Your task to perform on an android device: Search for Mexican restaurants on Maps Image 0: 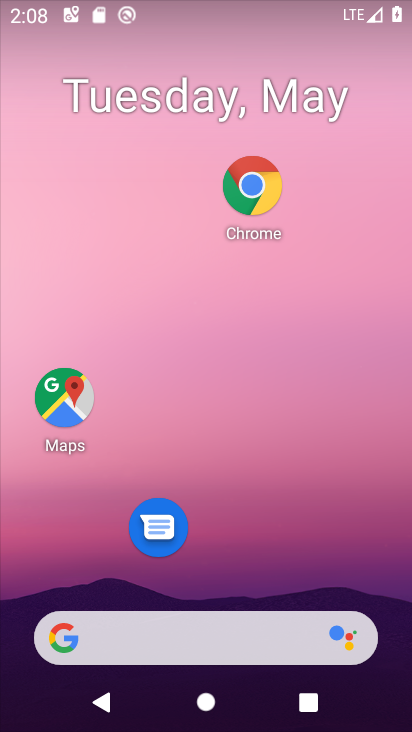
Step 0: click (48, 395)
Your task to perform on an android device: Search for Mexican restaurants on Maps Image 1: 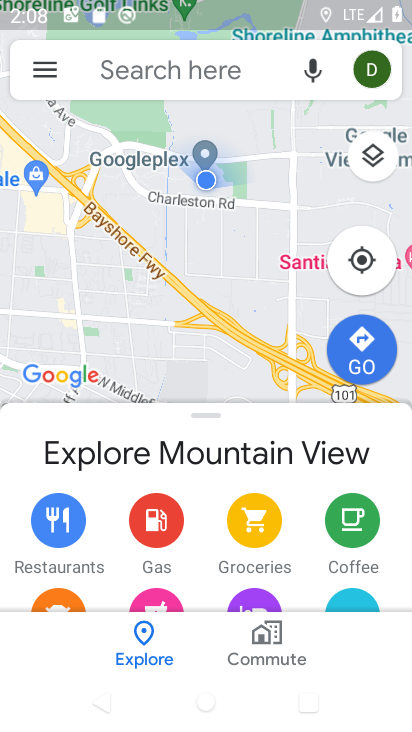
Step 1: click (125, 62)
Your task to perform on an android device: Search for Mexican restaurants on Maps Image 2: 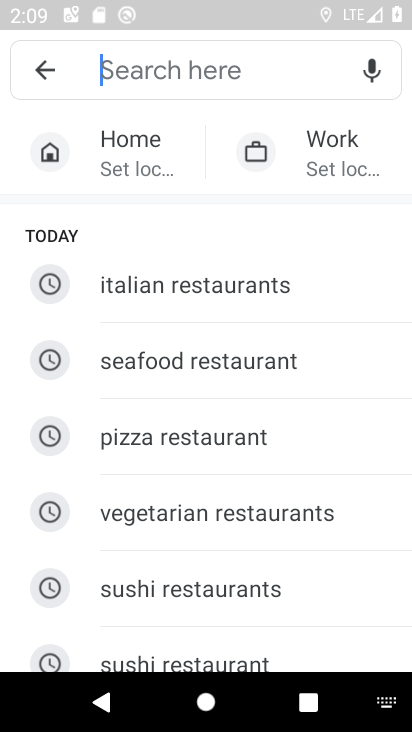
Step 2: type "mexican restaurants"
Your task to perform on an android device: Search for Mexican restaurants on Maps Image 3: 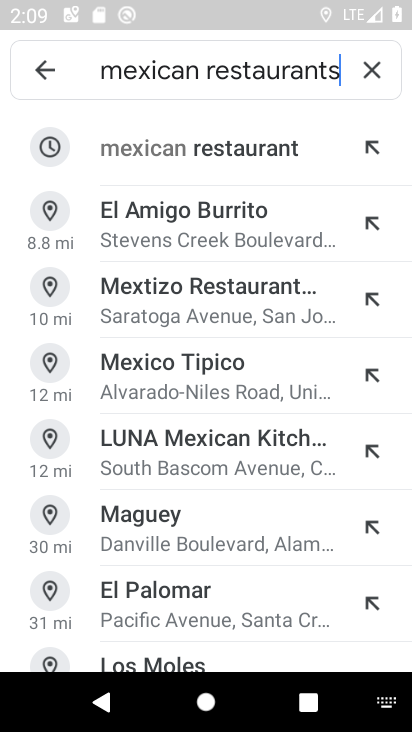
Step 3: click (234, 147)
Your task to perform on an android device: Search for Mexican restaurants on Maps Image 4: 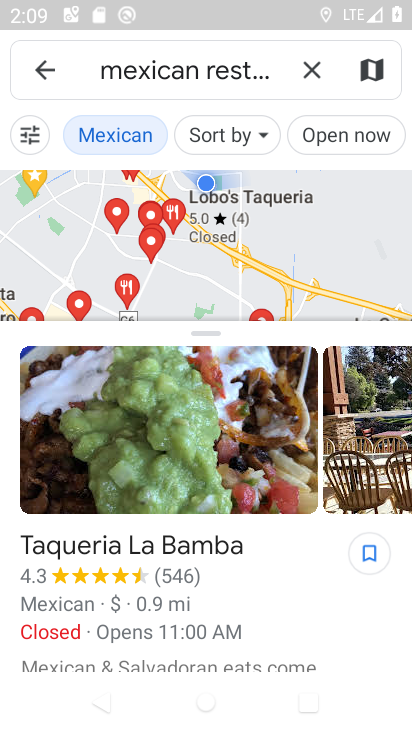
Step 4: task complete